Your task to perform on an android device: Open sound settings Image 0: 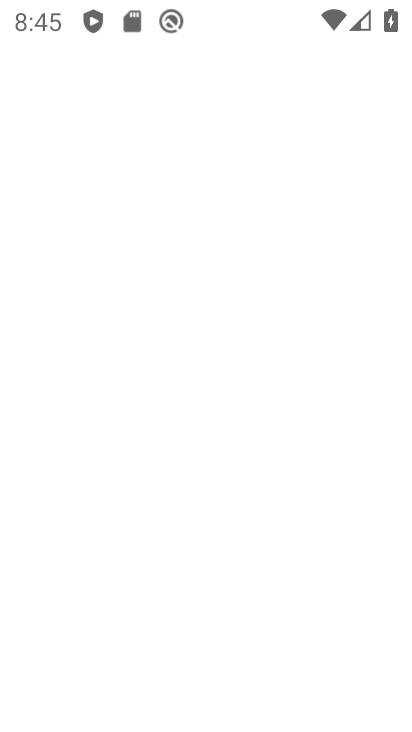
Step 0: press home button
Your task to perform on an android device: Open sound settings Image 1: 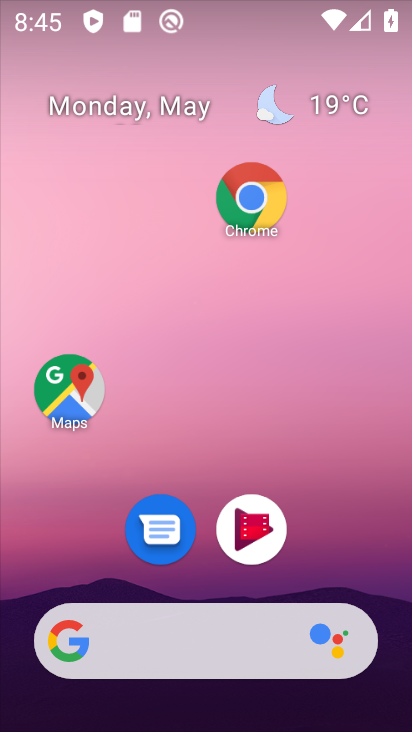
Step 1: drag from (308, 565) to (309, 197)
Your task to perform on an android device: Open sound settings Image 2: 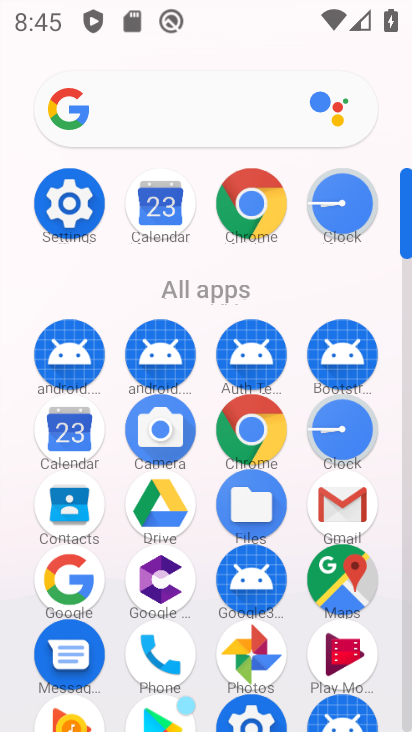
Step 2: click (73, 208)
Your task to perform on an android device: Open sound settings Image 3: 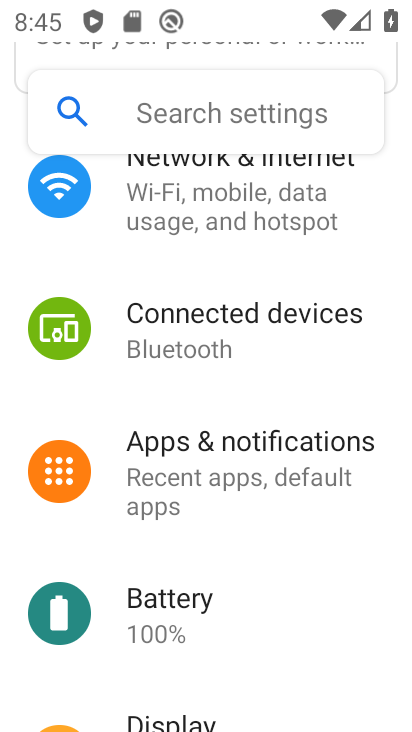
Step 3: drag from (241, 642) to (242, 258)
Your task to perform on an android device: Open sound settings Image 4: 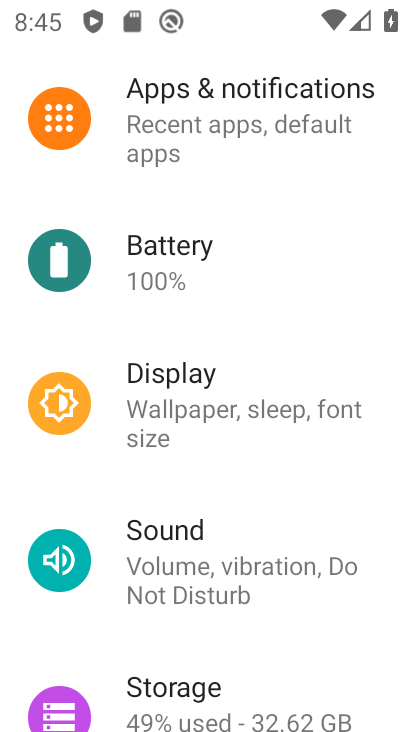
Step 4: click (202, 540)
Your task to perform on an android device: Open sound settings Image 5: 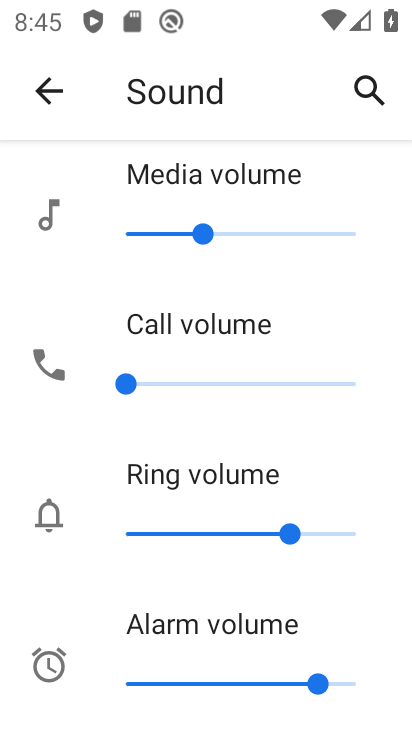
Step 5: task complete